Your task to perform on an android device: Go to Amazon Image 0: 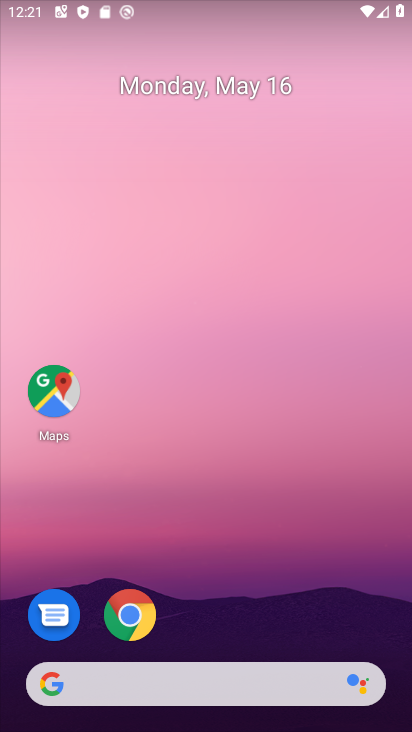
Step 0: drag from (93, 636) to (96, 84)
Your task to perform on an android device: Go to Amazon Image 1: 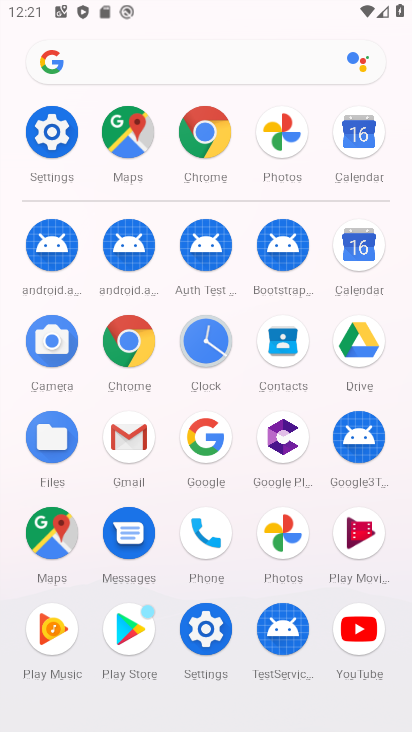
Step 1: click (132, 351)
Your task to perform on an android device: Go to Amazon Image 2: 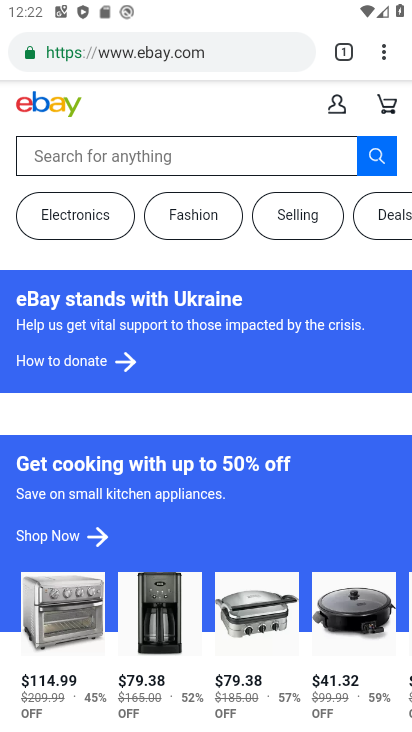
Step 2: drag from (389, 55) to (185, 118)
Your task to perform on an android device: Go to Amazon Image 3: 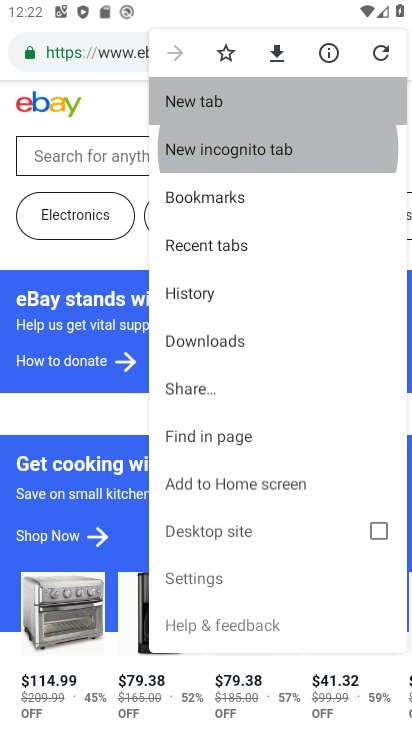
Step 3: click (174, 107)
Your task to perform on an android device: Go to Amazon Image 4: 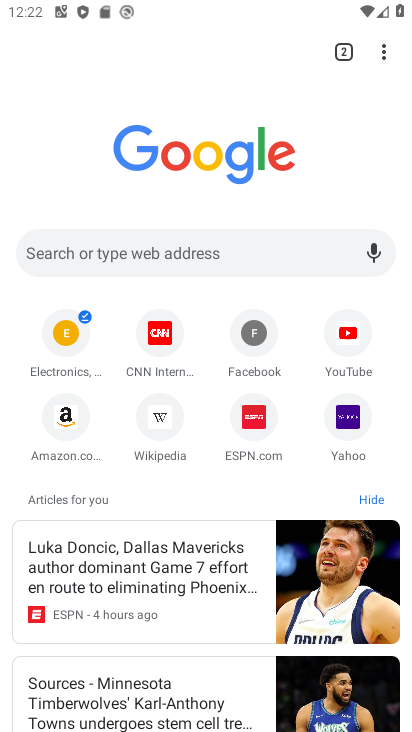
Step 4: click (49, 411)
Your task to perform on an android device: Go to Amazon Image 5: 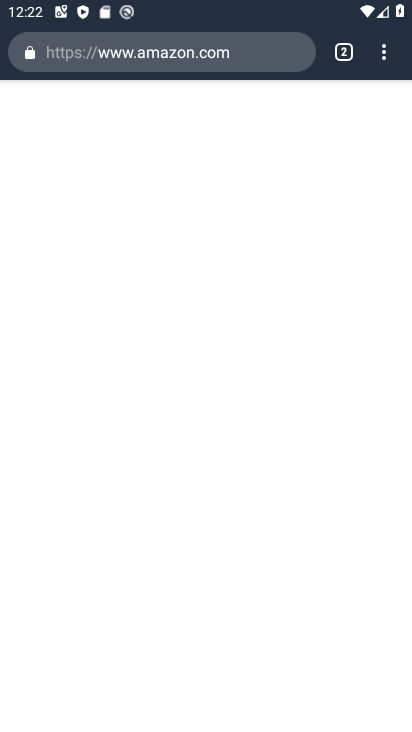
Step 5: task complete